Your task to perform on an android device: turn on improve location accuracy Image 0: 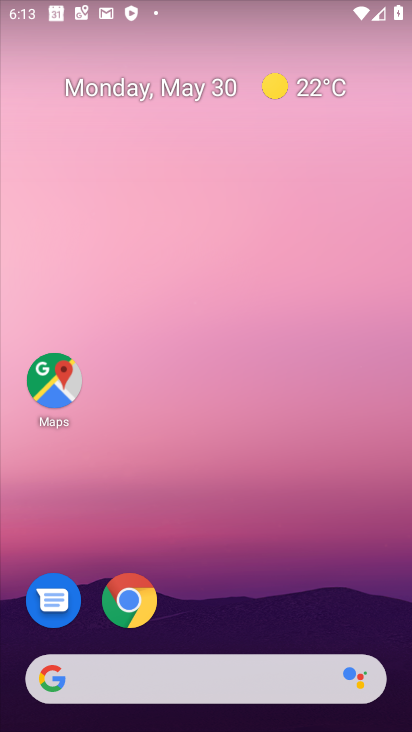
Step 0: drag from (242, 615) to (252, 30)
Your task to perform on an android device: turn on improve location accuracy Image 1: 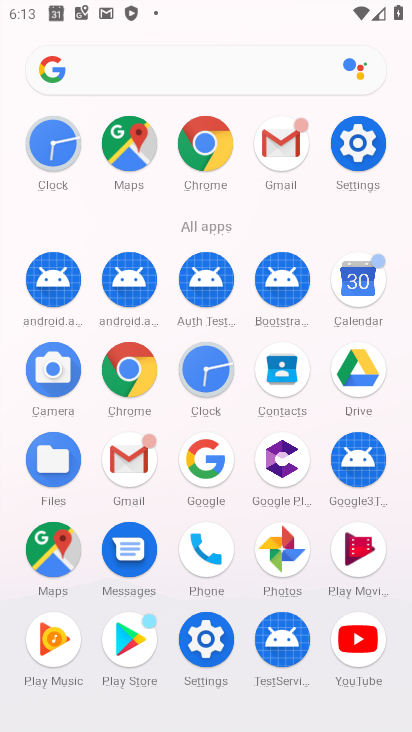
Step 1: click (362, 141)
Your task to perform on an android device: turn on improve location accuracy Image 2: 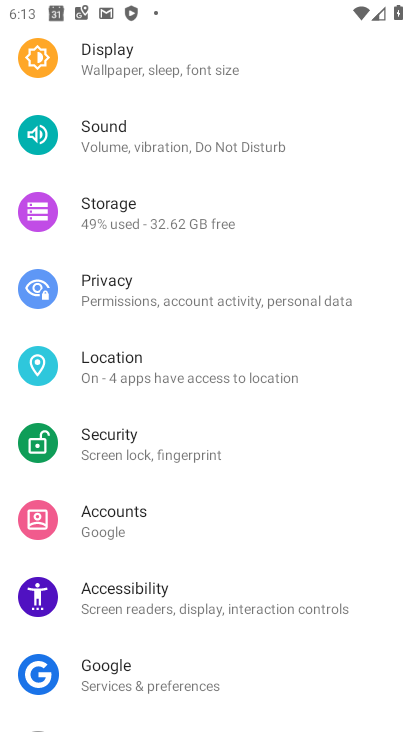
Step 2: click (132, 381)
Your task to perform on an android device: turn on improve location accuracy Image 3: 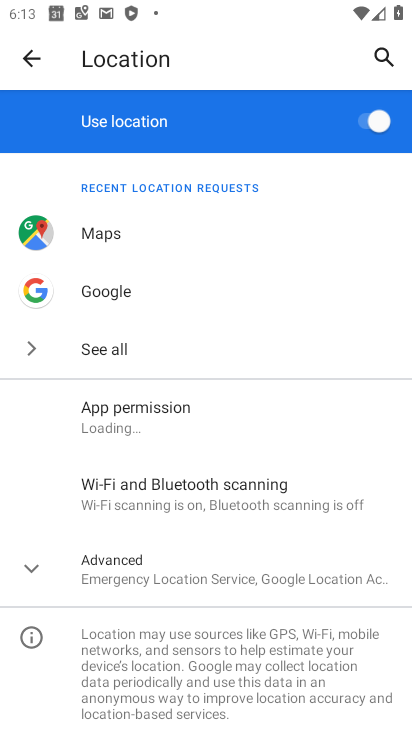
Step 3: click (110, 566)
Your task to perform on an android device: turn on improve location accuracy Image 4: 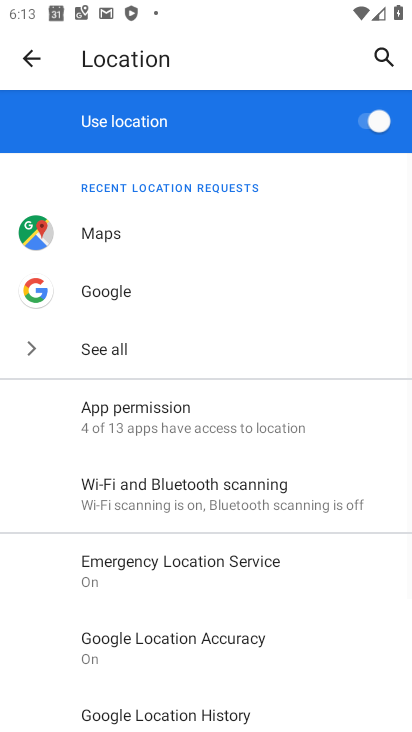
Step 4: drag from (357, 650) to (356, 492)
Your task to perform on an android device: turn on improve location accuracy Image 5: 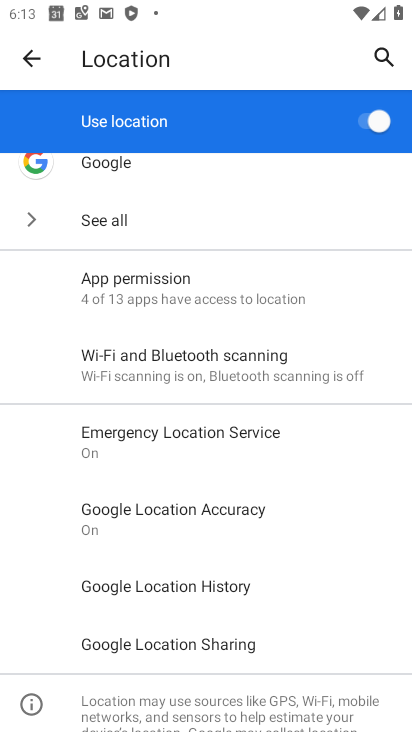
Step 5: click (189, 505)
Your task to perform on an android device: turn on improve location accuracy Image 6: 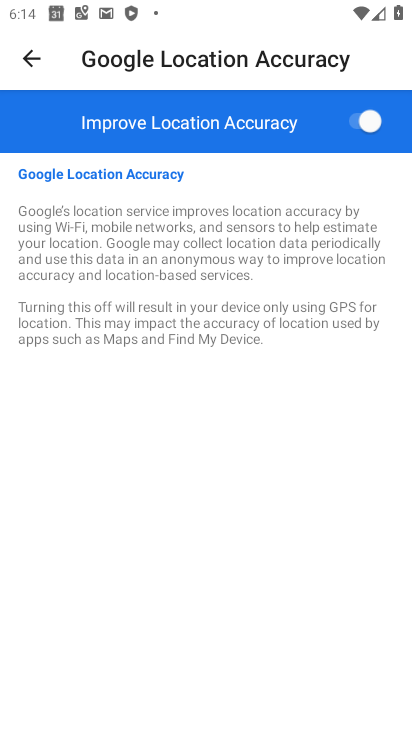
Step 6: task complete